Your task to perform on an android device: open the mobile data screen to see how much data has been used Image 0: 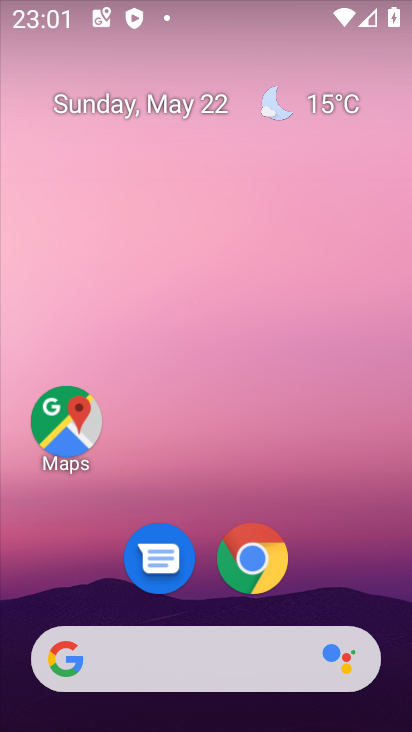
Step 0: drag from (341, 595) to (352, 13)
Your task to perform on an android device: open the mobile data screen to see how much data has been used Image 1: 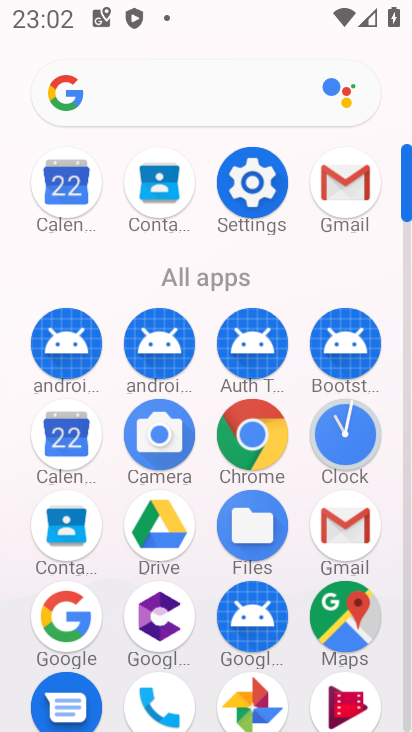
Step 1: click (251, 189)
Your task to perform on an android device: open the mobile data screen to see how much data has been used Image 2: 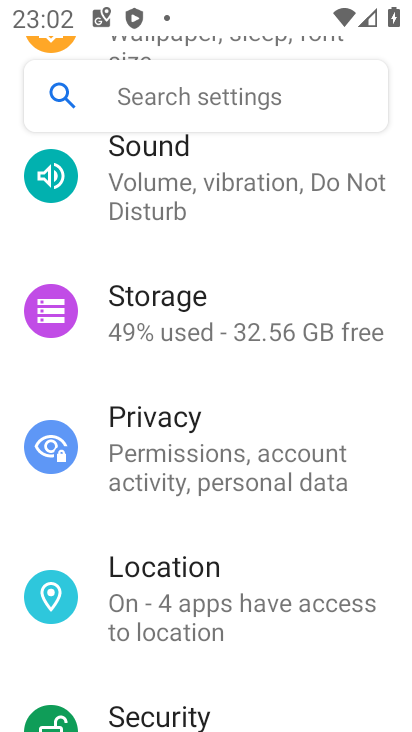
Step 2: drag from (308, 265) to (307, 588)
Your task to perform on an android device: open the mobile data screen to see how much data has been used Image 3: 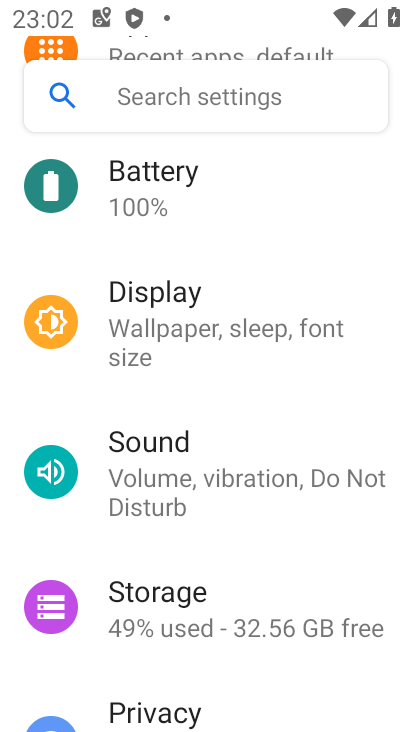
Step 3: drag from (268, 226) to (260, 562)
Your task to perform on an android device: open the mobile data screen to see how much data has been used Image 4: 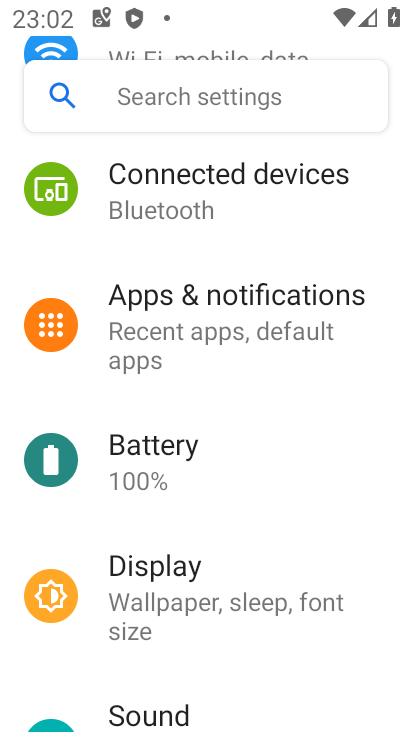
Step 4: drag from (323, 377) to (325, 612)
Your task to perform on an android device: open the mobile data screen to see how much data has been used Image 5: 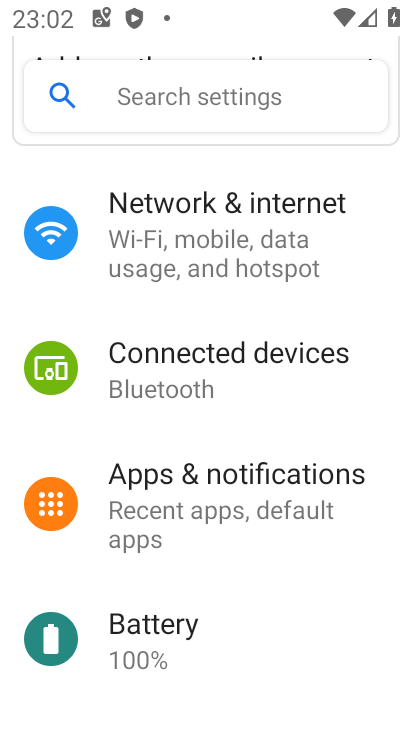
Step 5: click (213, 241)
Your task to perform on an android device: open the mobile data screen to see how much data has been used Image 6: 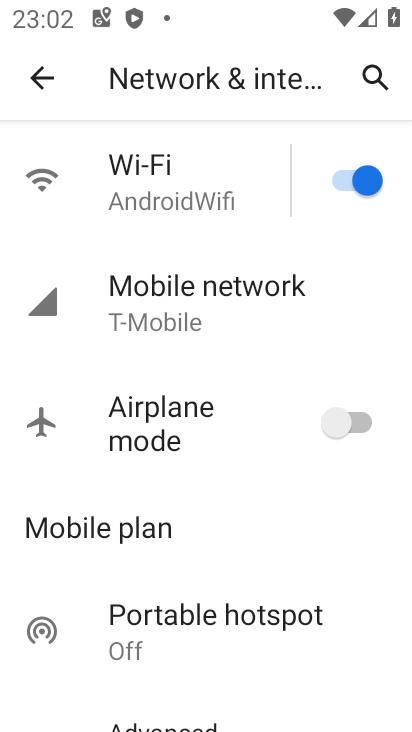
Step 6: click (165, 302)
Your task to perform on an android device: open the mobile data screen to see how much data has been used Image 7: 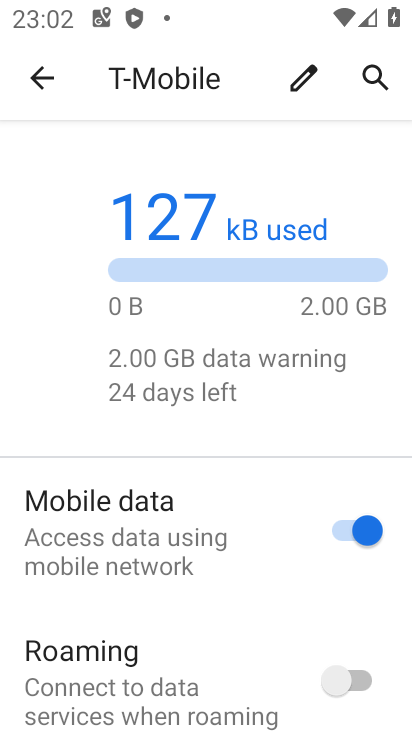
Step 7: drag from (177, 539) to (117, 93)
Your task to perform on an android device: open the mobile data screen to see how much data has been used Image 8: 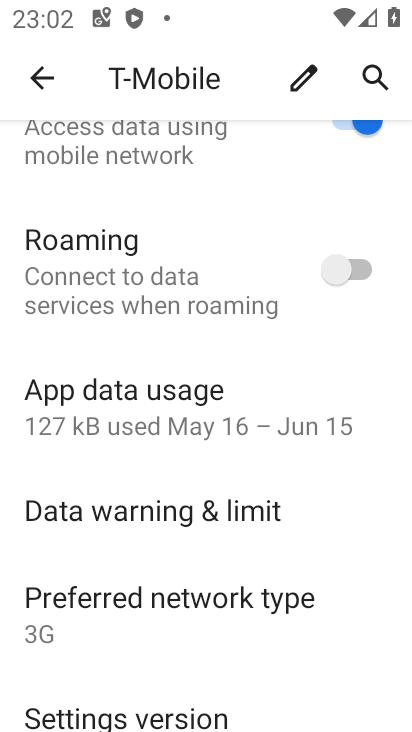
Step 8: click (116, 426)
Your task to perform on an android device: open the mobile data screen to see how much data has been used Image 9: 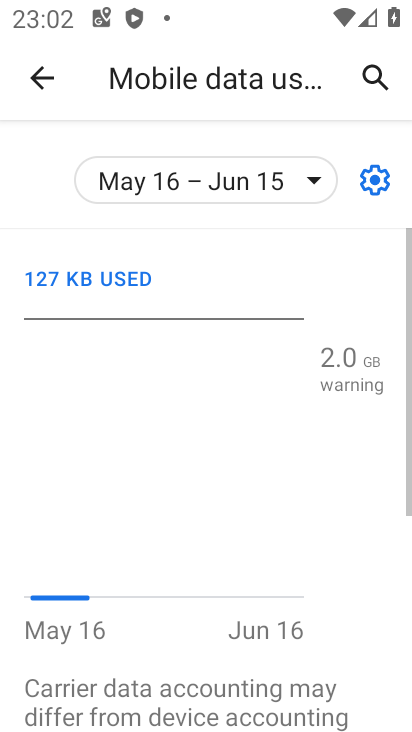
Step 9: task complete